Your task to perform on an android device: open chrome privacy settings Image 0: 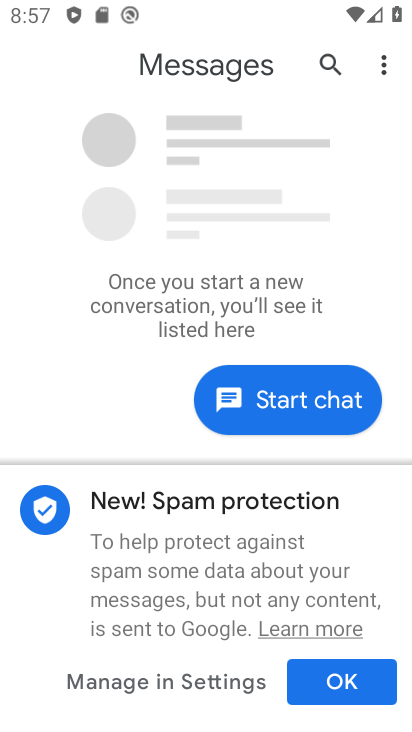
Step 0: press home button
Your task to perform on an android device: open chrome privacy settings Image 1: 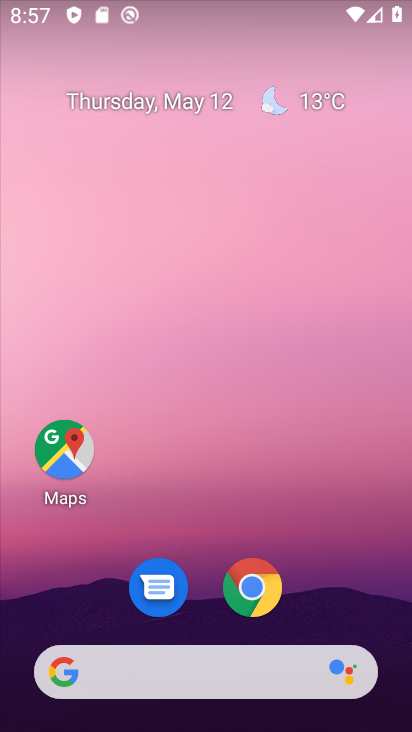
Step 1: drag from (325, 559) to (348, 0)
Your task to perform on an android device: open chrome privacy settings Image 2: 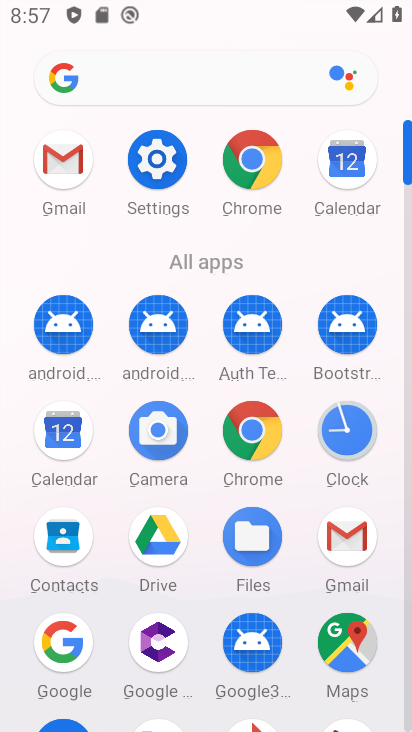
Step 2: click (177, 160)
Your task to perform on an android device: open chrome privacy settings Image 3: 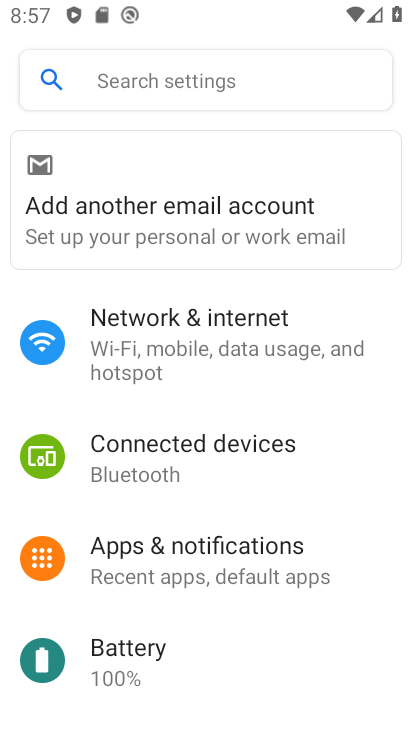
Step 3: drag from (202, 588) to (174, 169)
Your task to perform on an android device: open chrome privacy settings Image 4: 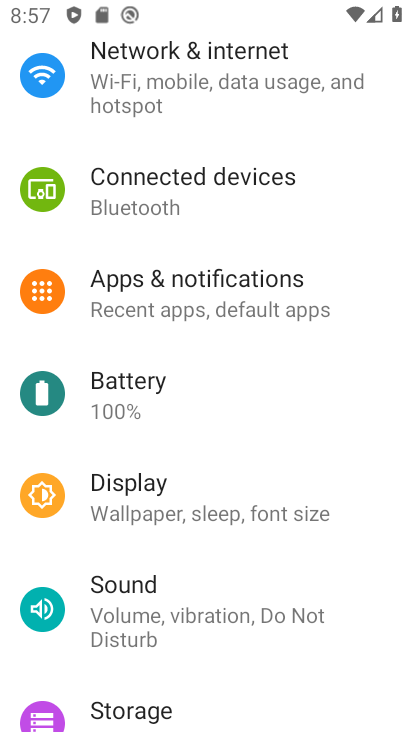
Step 4: drag from (160, 622) to (202, 204)
Your task to perform on an android device: open chrome privacy settings Image 5: 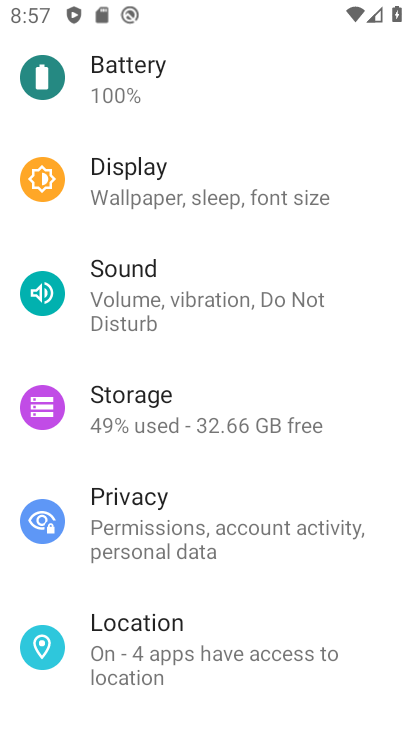
Step 5: click (177, 537)
Your task to perform on an android device: open chrome privacy settings Image 6: 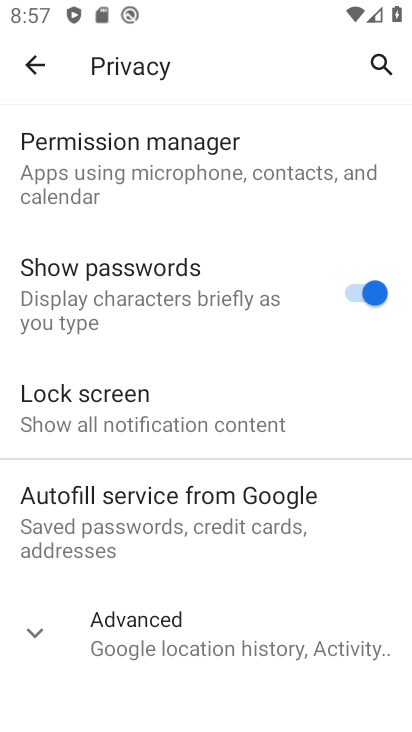
Step 6: task complete